Your task to perform on an android device: turn on sleep mode Image 0: 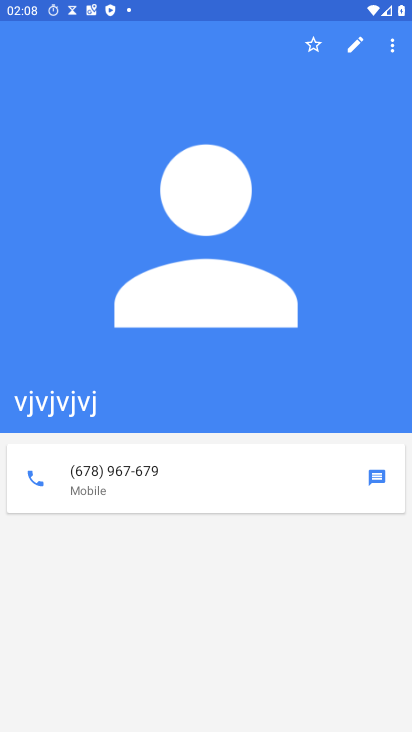
Step 0: press home button
Your task to perform on an android device: turn on sleep mode Image 1: 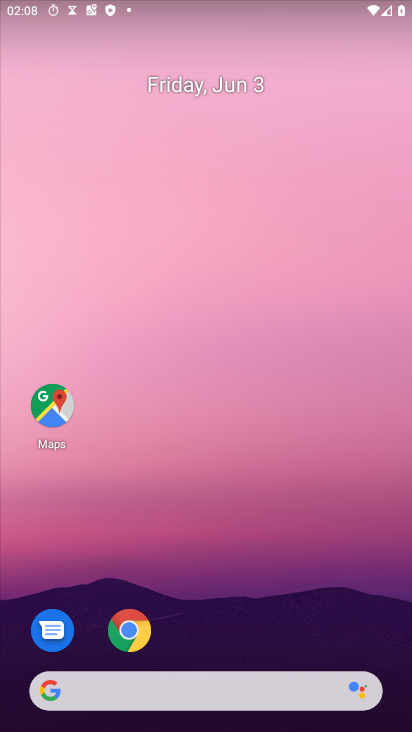
Step 1: drag from (241, 644) to (167, 187)
Your task to perform on an android device: turn on sleep mode Image 2: 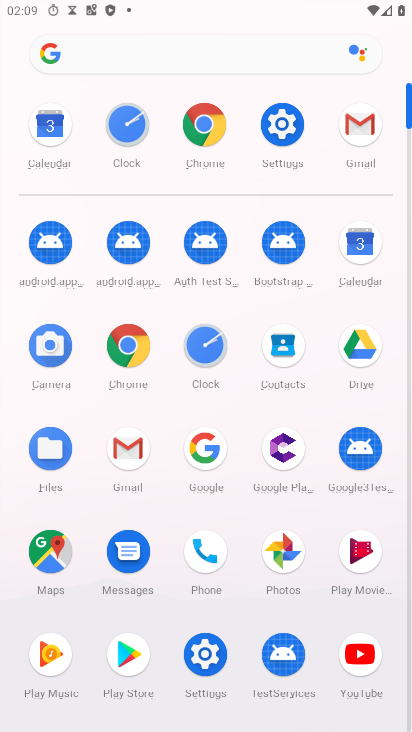
Step 2: click (287, 138)
Your task to perform on an android device: turn on sleep mode Image 3: 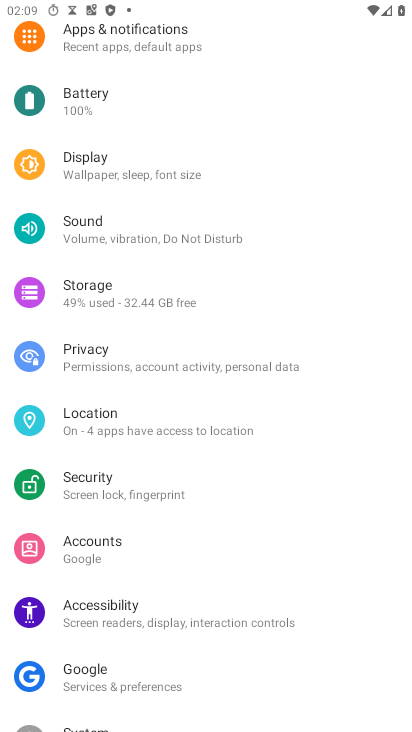
Step 3: click (219, 174)
Your task to perform on an android device: turn on sleep mode Image 4: 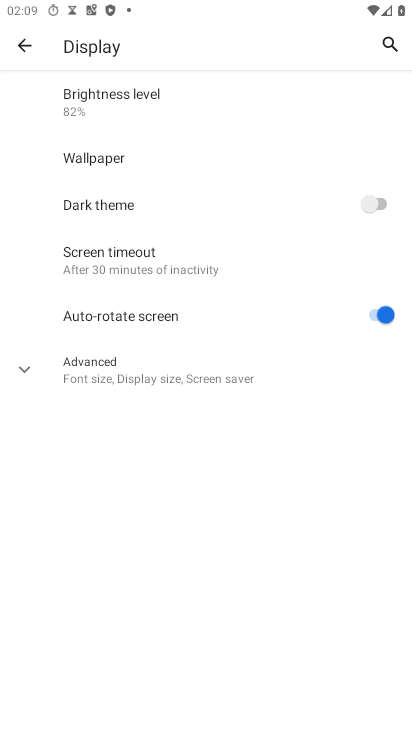
Step 4: click (221, 367)
Your task to perform on an android device: turn on sleep mode Image 5: 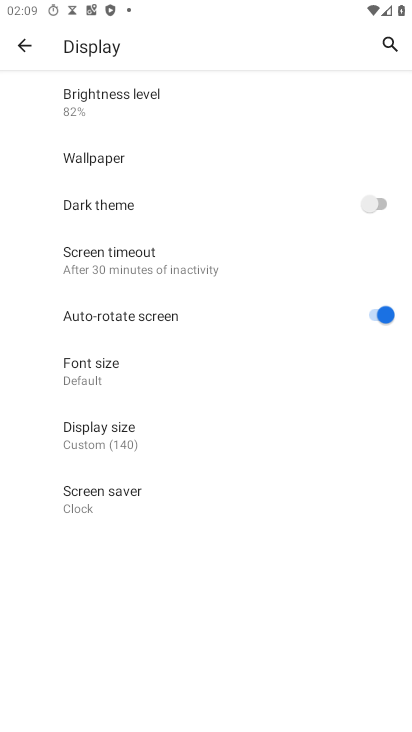
Step 5: task complete